Your task to perform on an android device: change the clock display to digital Image 0: 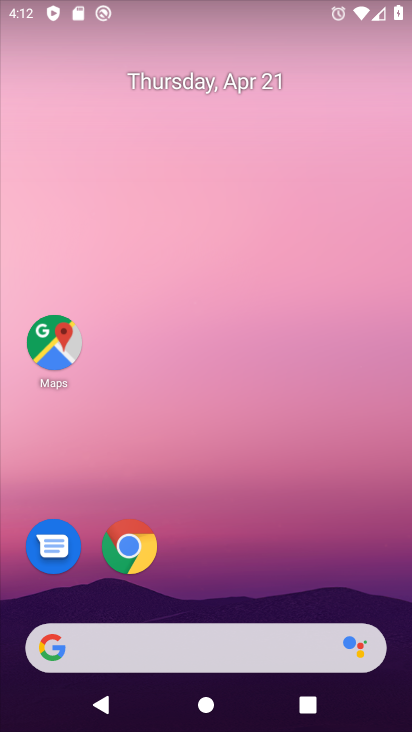
Step 0: drag from (288, 343) to (332, 122)
Your task to perform on an android device: change the clock display to digital Image 1: 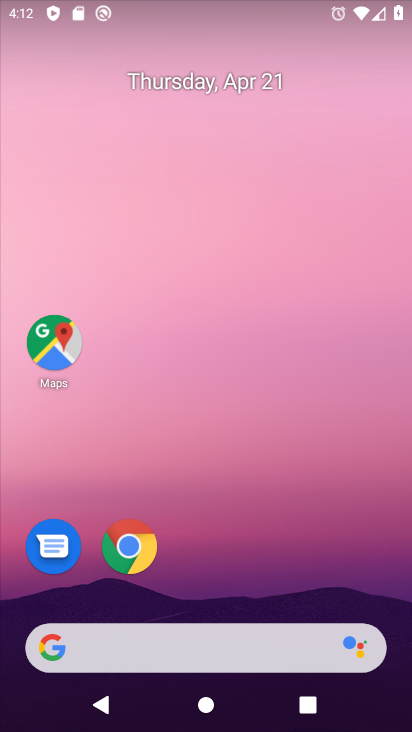
Step 1: drag from (301, 567) to (278, 167)
Your task to perform on an android device: change the clock display to digital Image 2: 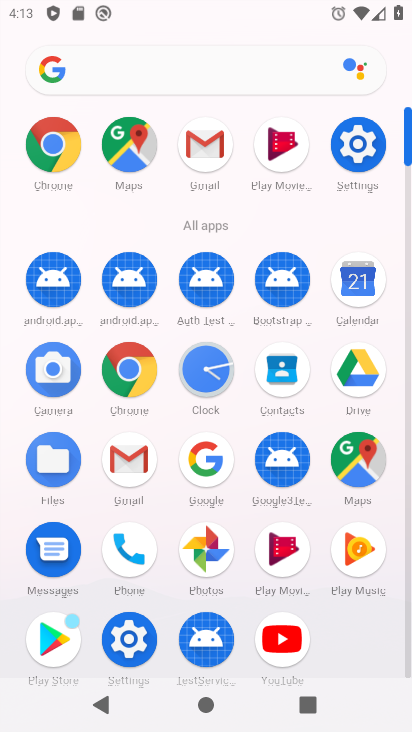
Step 2: click (214, 369)
Your task to perform on an android device: change the clock display to digital Image 3: 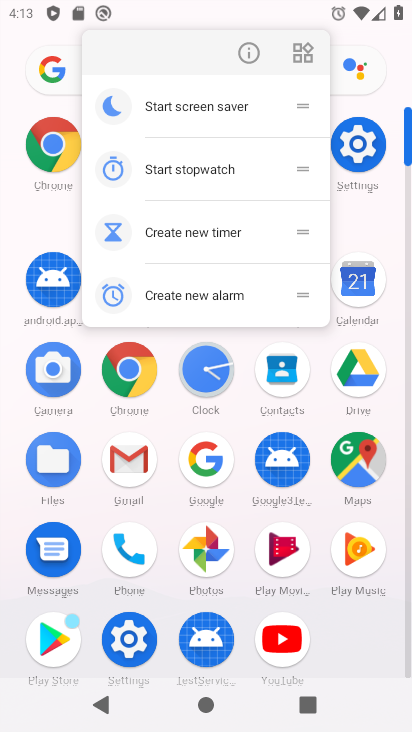
Step 3: click (206, 378)
Your task to perform on an android device: change the clock display to digital Image 4: 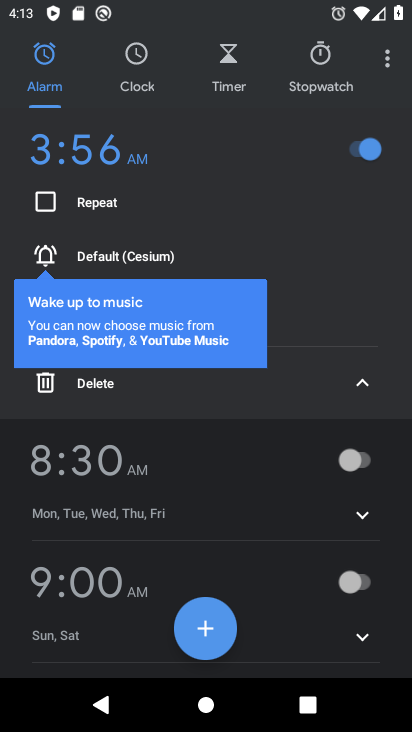
Step 4: click (384, 62)
Your task to perform on an android device: change the clock display to digital Image 5: 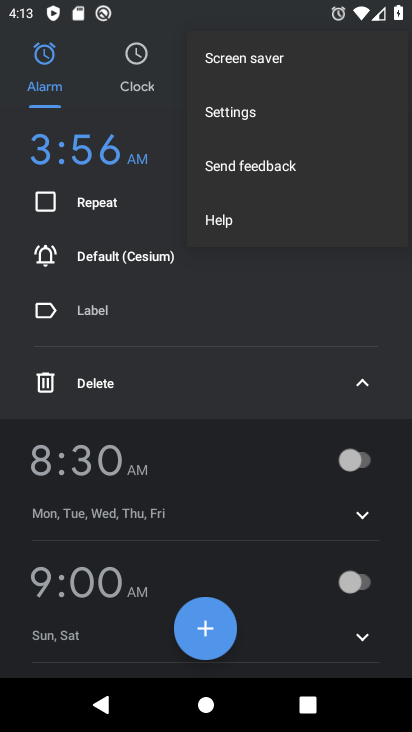
Step 5: click (253, 120)
Your task to perform on an android device: change the clock display to digital Image 6: 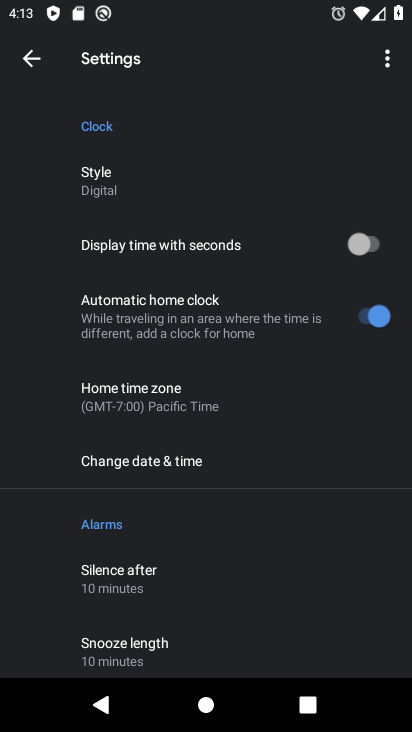
Step 6: task complete